Your task to perform on an android device: empty trash in google photos Image 0: 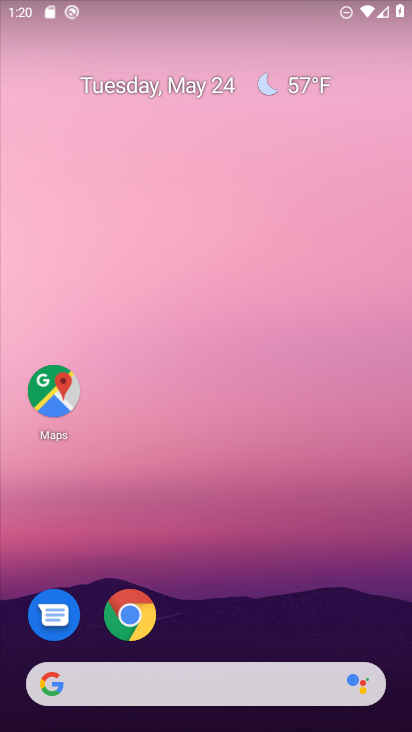
Step 0: click (134, 615)
Your task to perform on an android device: empty trash in google photos Image 1: 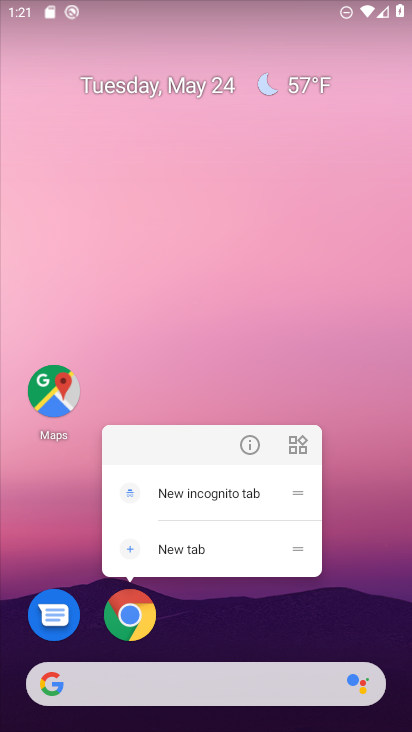
Step 1: click (198, 641)
Your task to perform on an android device: empty trash in google photos Image 2: 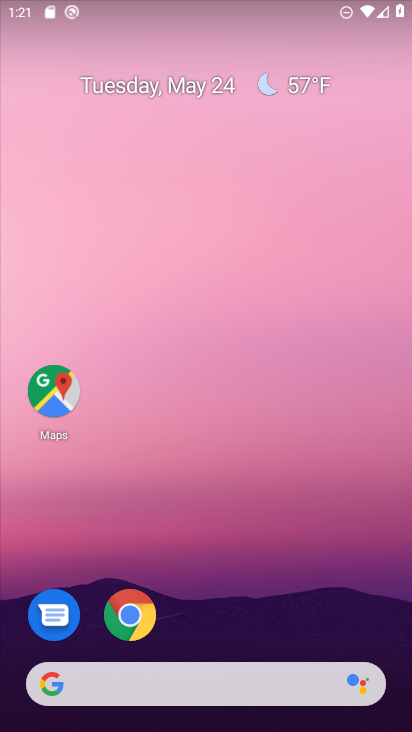
Step 2: drag from (211, 660) to (265, 197)
Your task to perform on an android device: empty trash in google photos Image 3: 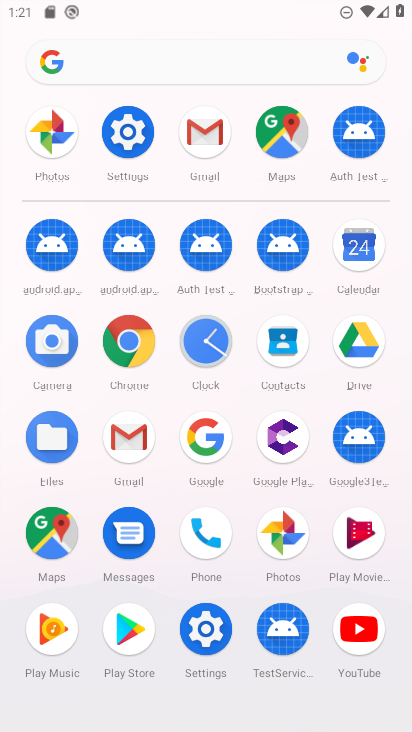
Step 3: click (280, 538)
Your task to perform on an android device: empty trash in google photos Image 4: 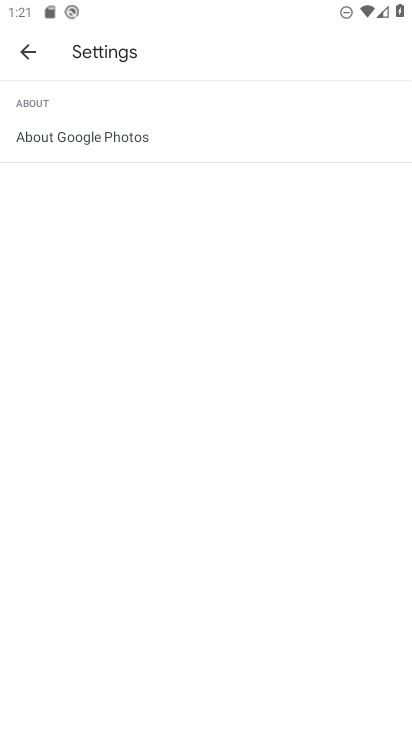
Step 4: click (28, 54)
Your task to perform on an android device: empty trash in google photos Image 5: 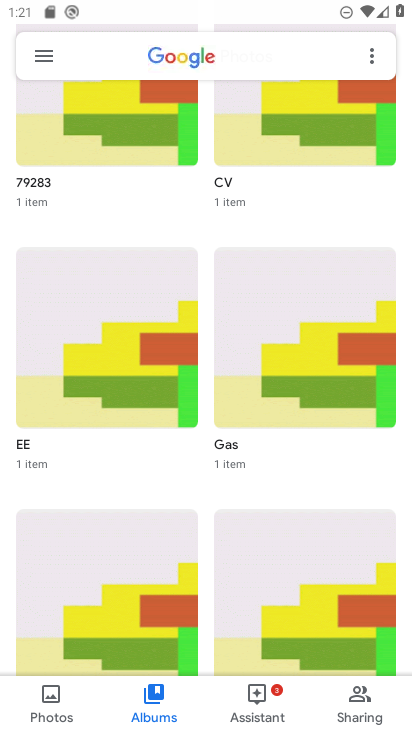
Step 5: click (47, 50)
Your task to perform on an android device: empty trash in google photos Image 6: 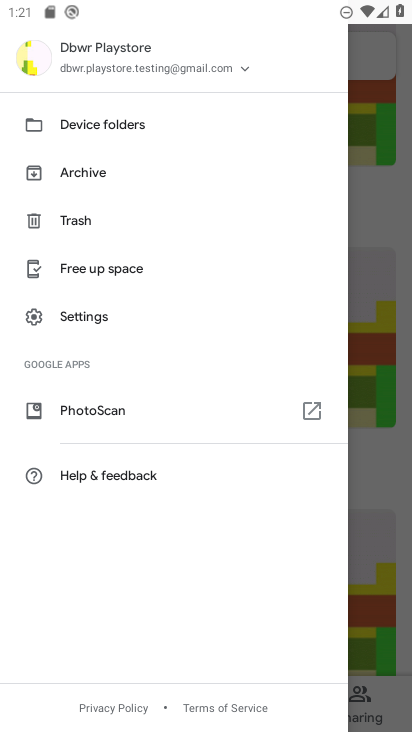
Step 6: click (68, 208)
Your task to perform on an android device: empty trash in google photos Image 7: 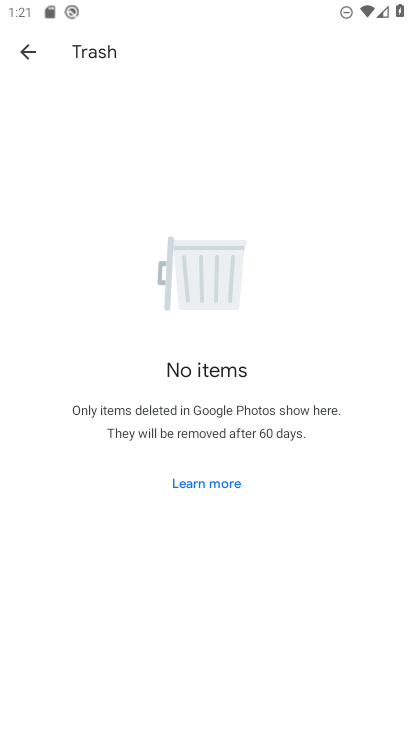
Step 7: task complete